Your task to perform on an android device: Open Google Image 0: 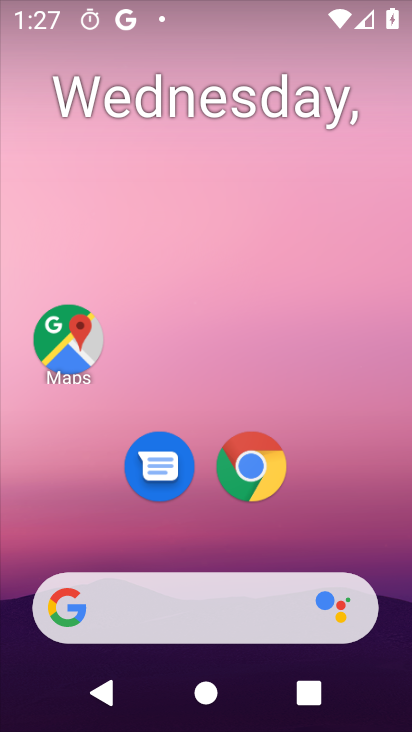
Step 0: click (65, 597)
Your task to perform on an android device: Open Google Image 1: 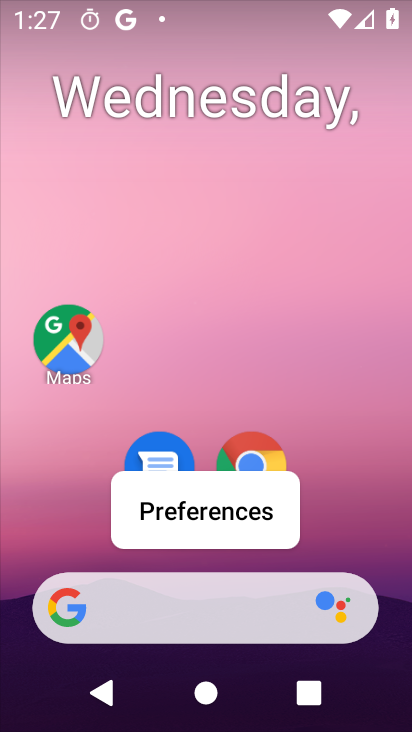
Step 1: click (119, 601)
Your task to perform on an android device: Open Google Image 2: 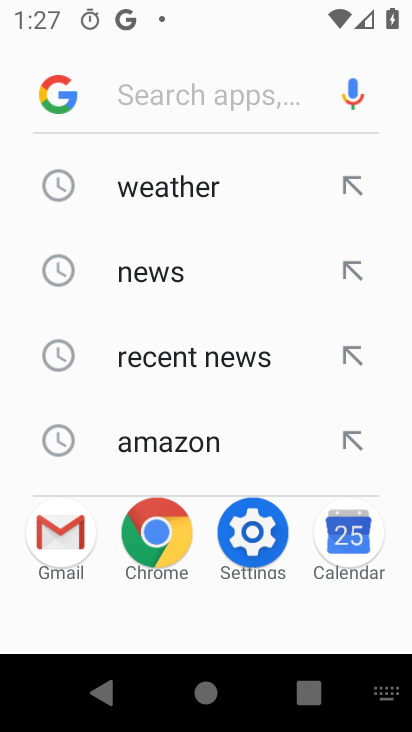
Step 2: task complete